Your task to perform on an android device: Open location settings Image 0: 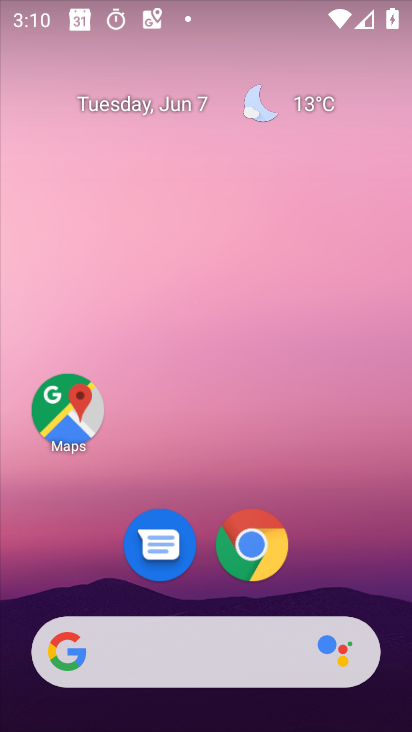
Step 0: drag from (353, 482) to (185, 0)
Your task to perform on an android device: Open location settings Image 1: 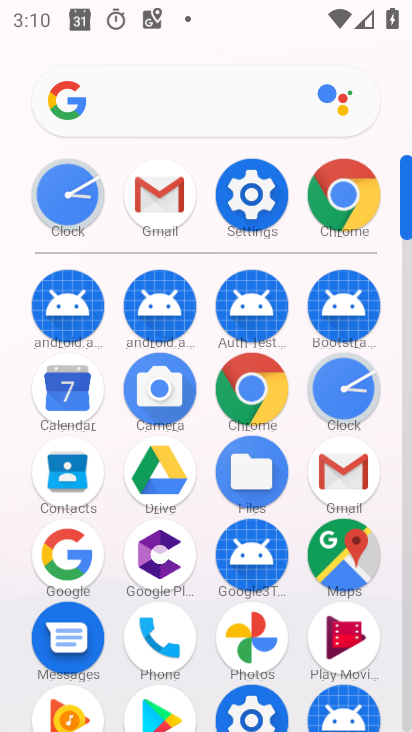
Step 1: click (252, 179)
Your task to perform on an android device: Open location settings Image 2: 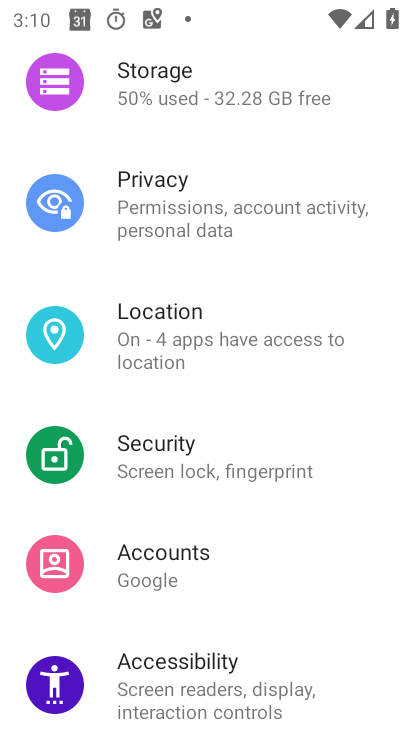
Step 2: click (210, 341)
Your task to perform on an android device: Open location settings Image 3: 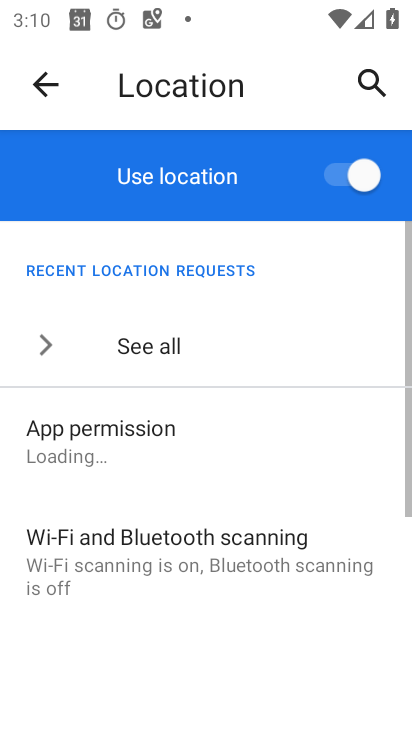
Step 3: task complete